Your task to perform on an android device: create a new album in the google photos Image 0: 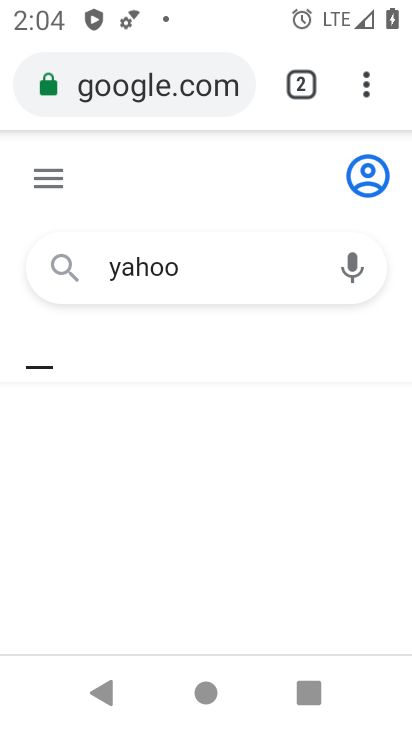
Step 0: press home button
Your task to perform on an android device: create a new album in the google photos Image 1: 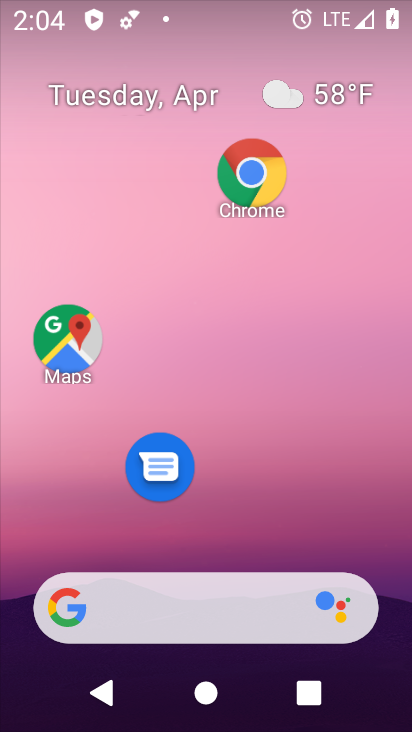
Step 1: drag from (286, 504) to (336, 1)
Your task to perform on an android device: create a new album in the google photos Image 2: 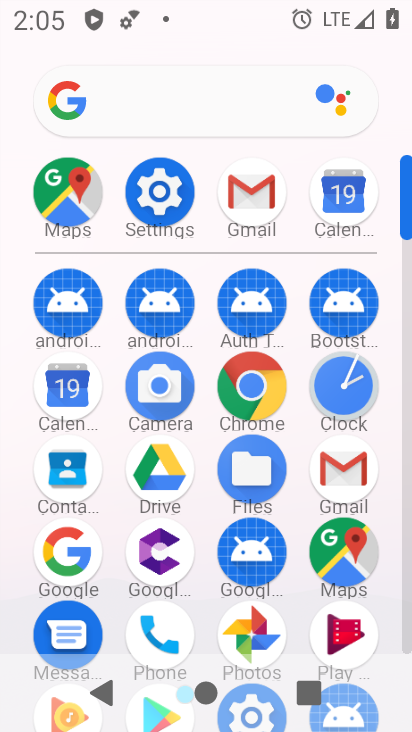
Step 2: drag from (302, 609) to (302, 251)
Your task to perform on an android device: create a new album in the google photos Image 3: 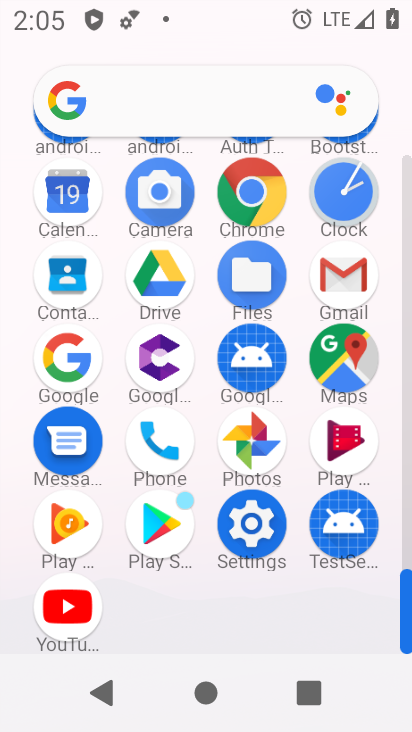
Step 3: click (258, 460)
Your task to perform on an android device: create a new album in the google photos Image 4: 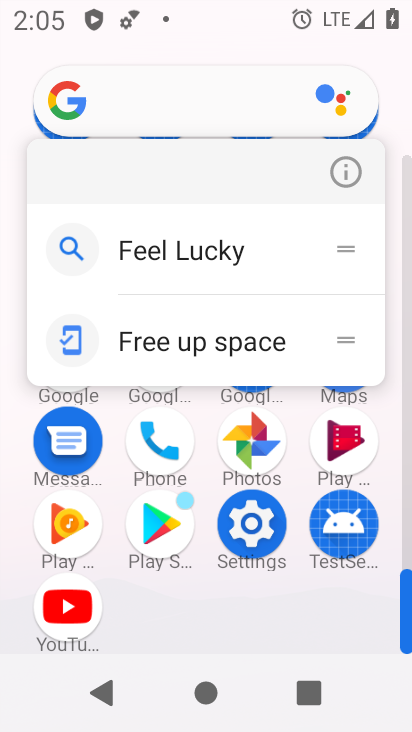
Step 4: click (258, 460)
Your task to perform on an android device: create a new album in the google photos Image 5: 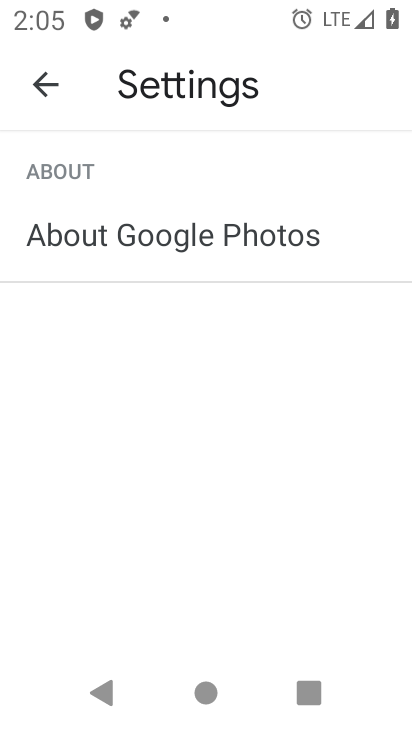
Step 5: click (57, 86)
Your task to perform on an android device: create a new album in the google photos Image 6: 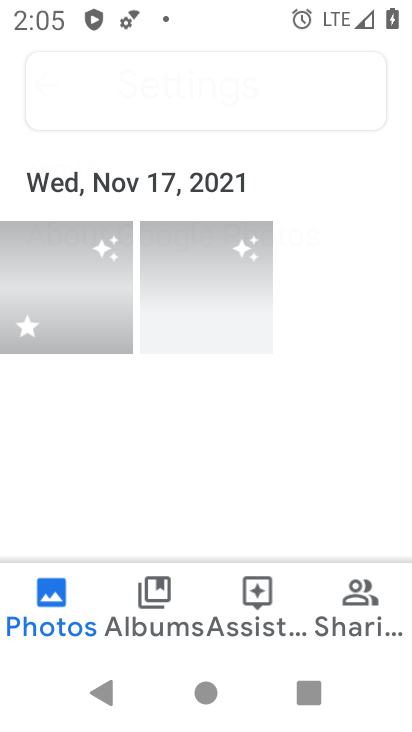
Step 6: press back button
Your task to perform on an android device: create a new album in the google photos Image 7: 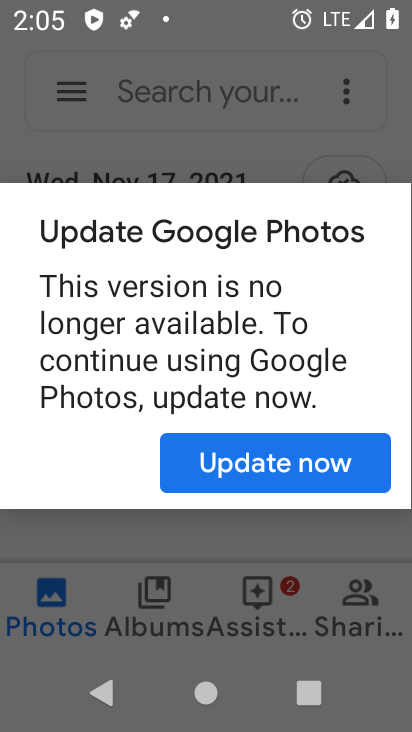
Step 7: click (260, 542)
Your task to perform on an android device: create a new album in the google photos Image 8: 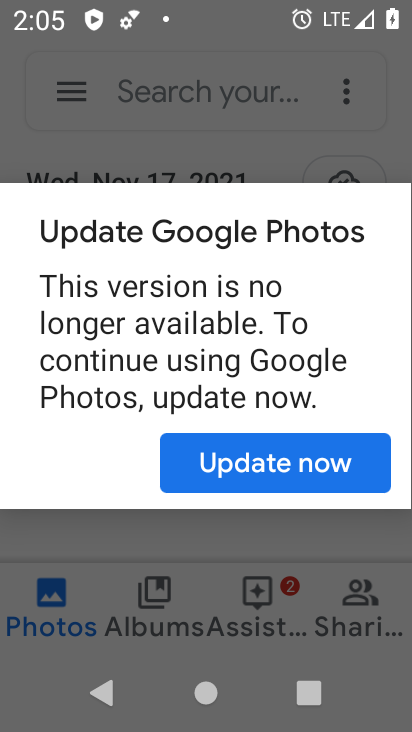
Step 8: click (354, 456)
Your task to perform on an android device: create a new album in the google photos Image 9: 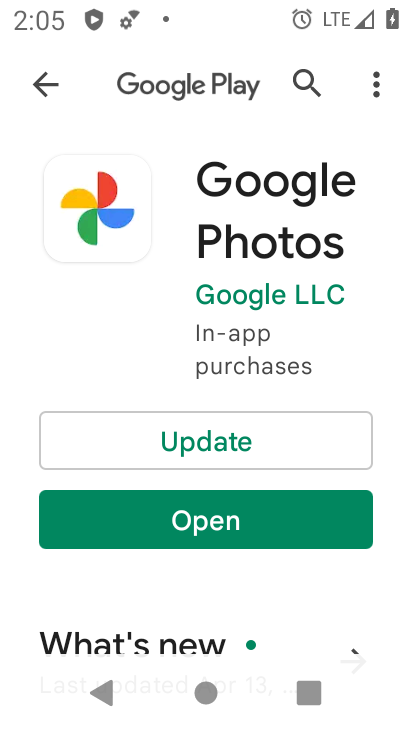
Step 9: click (262, 443)
Your task to perform on an android device: create a new album in the google photos Image 10: 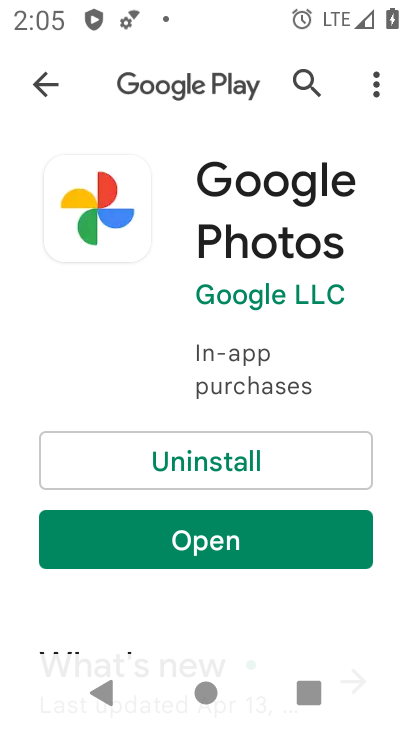
Step 10: click (254, 553)
Your task to perform on an android device: create a new album in the google photos Image 11: 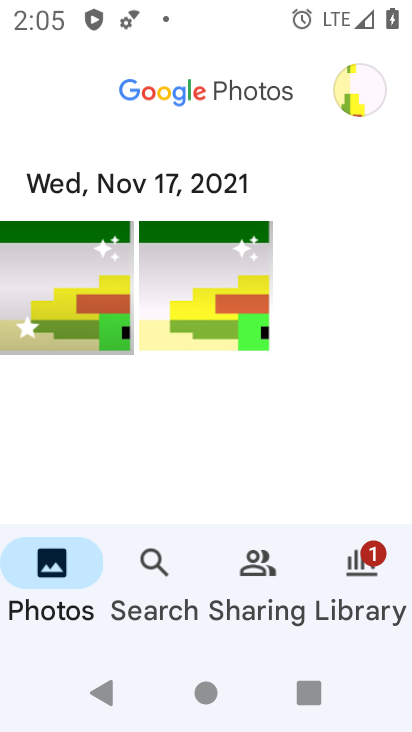
Step 11: click (348, 78)
Your task to perform on an android device: create a new album in the google photos Image 12: 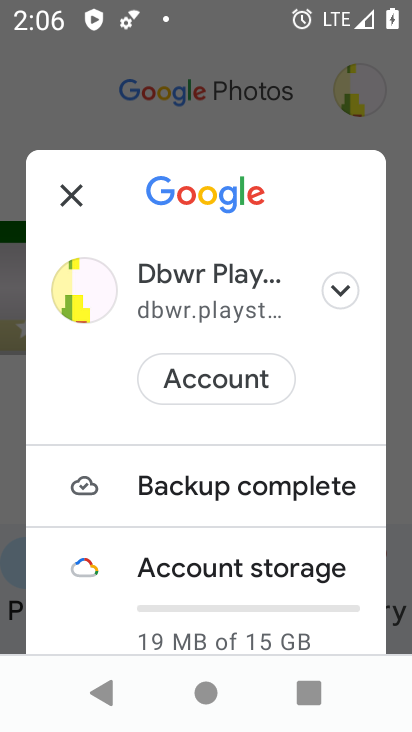
Step 12: click (64, 195)
Your task to perform on an android device: create a new album in the google photos Image 13: 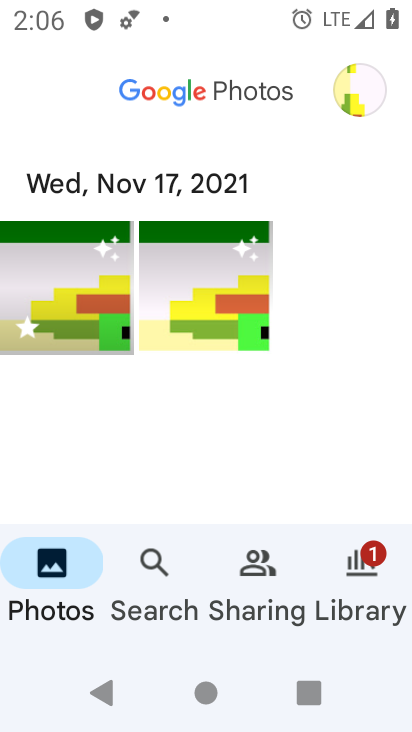
Step 13: click (380, 590)
Your task to perform on an android device: create a new album in the google photos Image 14: 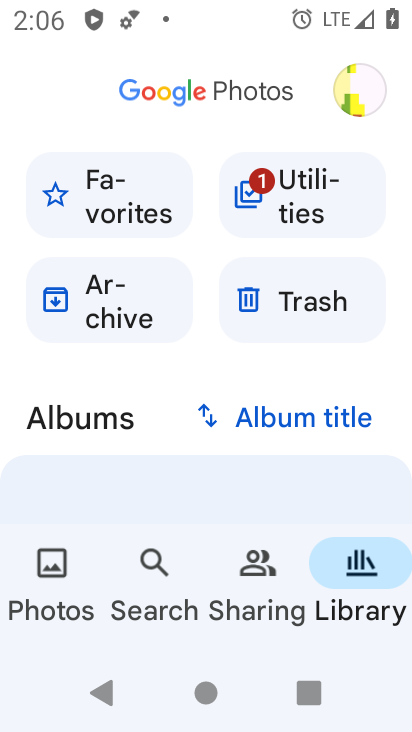
Step 14: drag from (154, 507) to (243, 70)
Your task to perform on an android device: create a new album in the google photos Image 15: 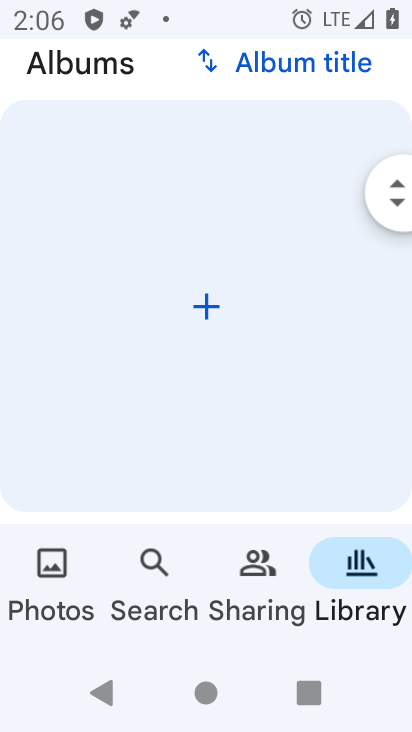
Step 15: click (208, 303)
Your task to perform on an android device: create a new album in the google photos Image 16: 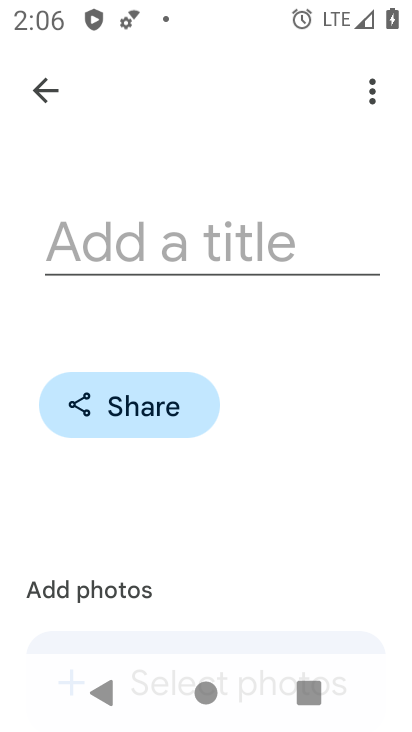
Step 16: click (226, 248)
Your task to perform on an android device: create a new album in the google photos Image 17: 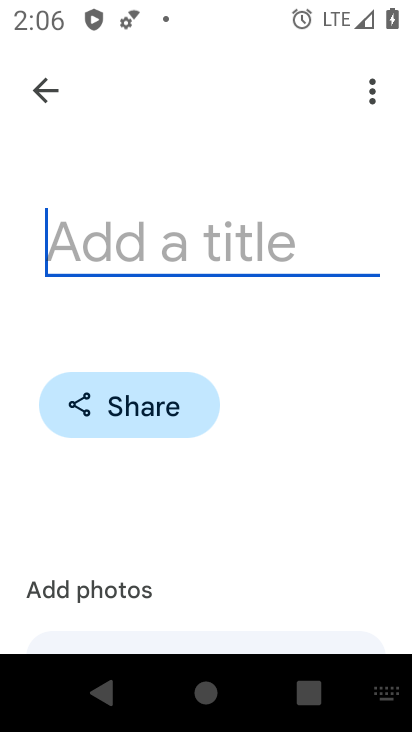
Step 17: type "select"
Your task to perform on an android device: create a new album in the google photos Image 18: 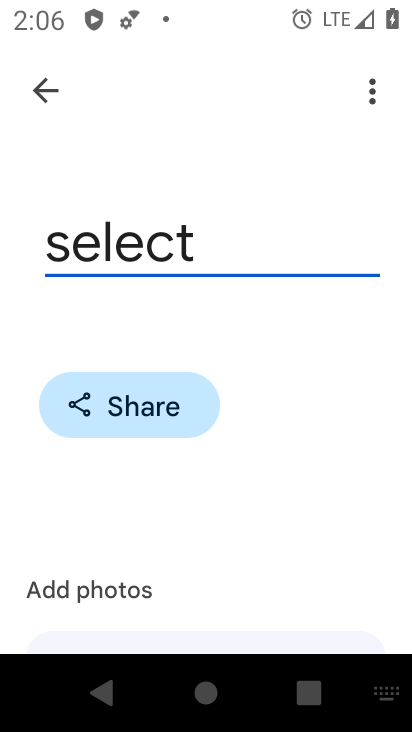
Step 18: click (95, 588)
Your task to perform on an android device: create a new album in the google photos Image 19: 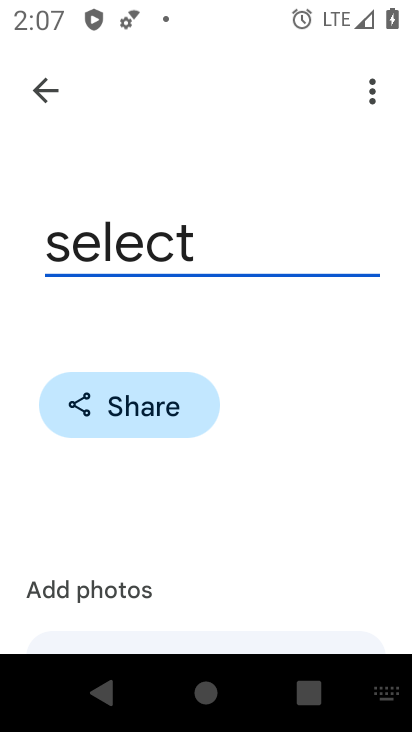
Step 19: drag from (154, 613) to (226, 260)
Your task to perform on an android device: create a new album in the google photos Image 20: 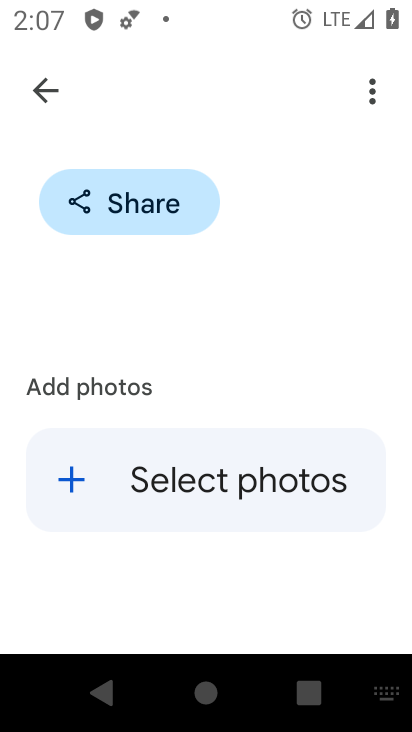
Step 20: click (211, 472)
Your task to perform on an android device: create a new album in the google photos Image 21: 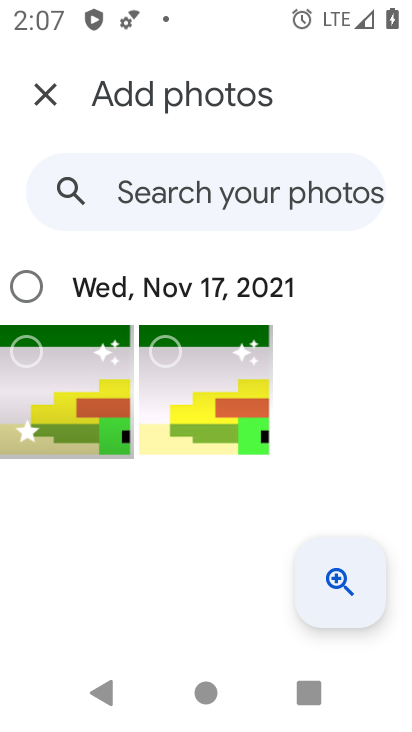
Step 21: click (59, 388)
Your task to perform on an android device: create a new album in the google photos Image 22: 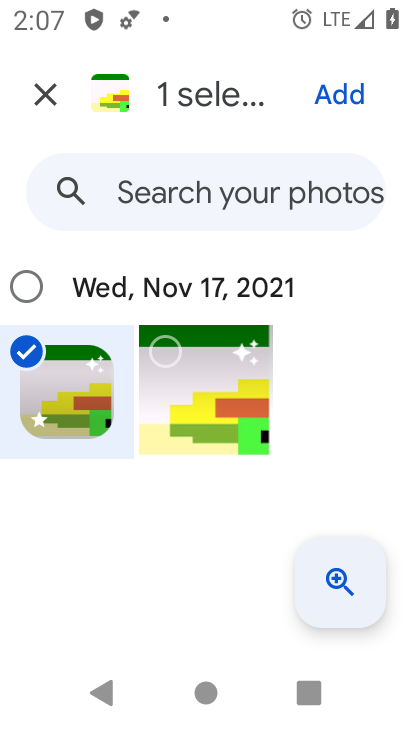
Step 22: click (329, 93)
Your task to perform on an android device: create a new album in the google photos Image 23: 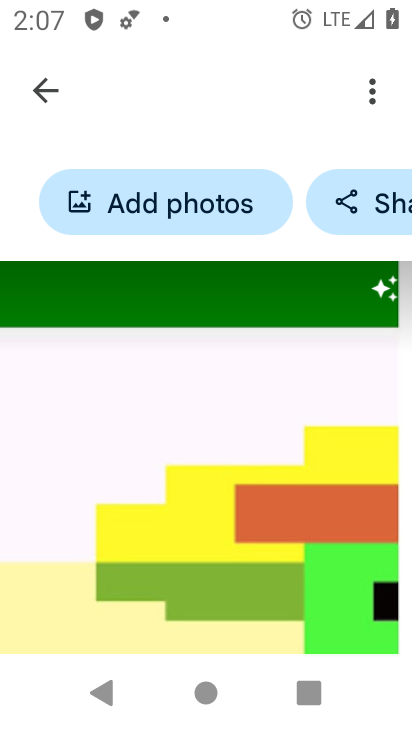
Step 23: task complete